Your task to perform on an android device: add a label to a message in the gmail app Image 0: 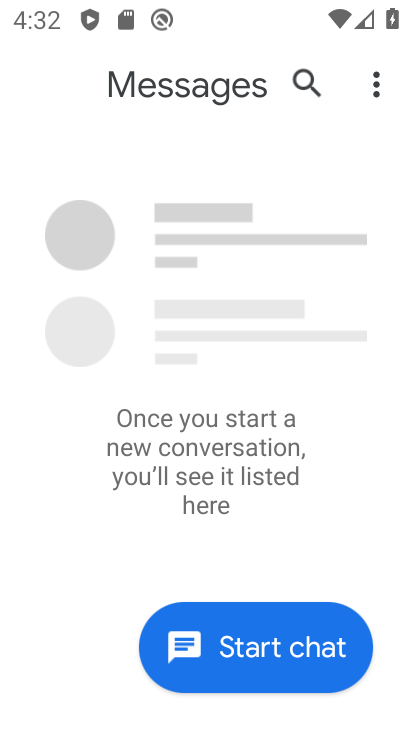
Step 0: press home button
Your task to perform on an android device: add a label to a message in the gmail app Image 1: 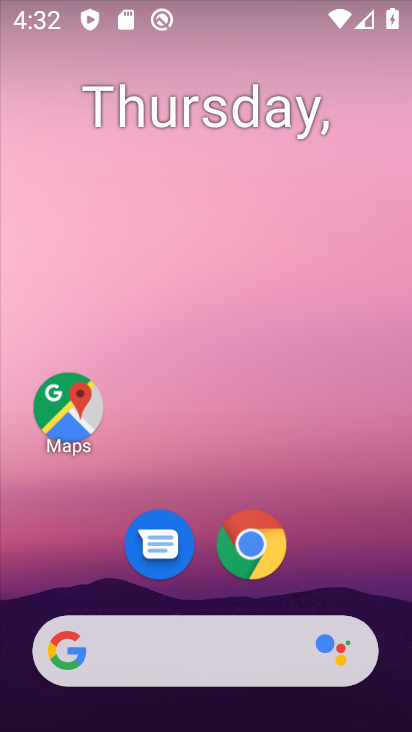
Step 1: drag from (349, 511) to (339, 85)
Your task to perform on an android device: add a label to a message in the gmail app Image 2: 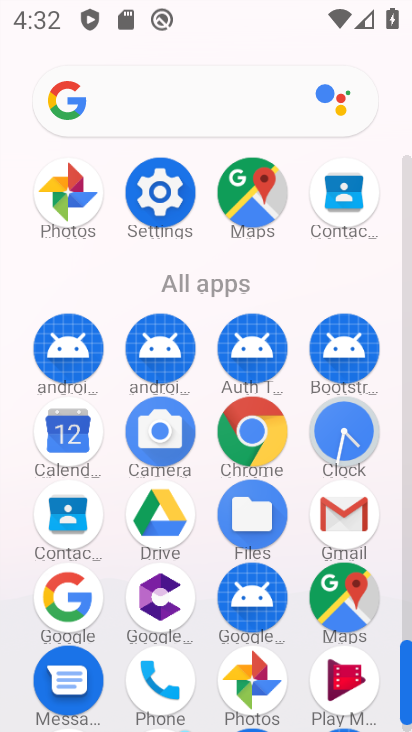
Step 2: click (349, 511)
Your task to perform on an android device: add a label to a message in the gmail app Image 3: 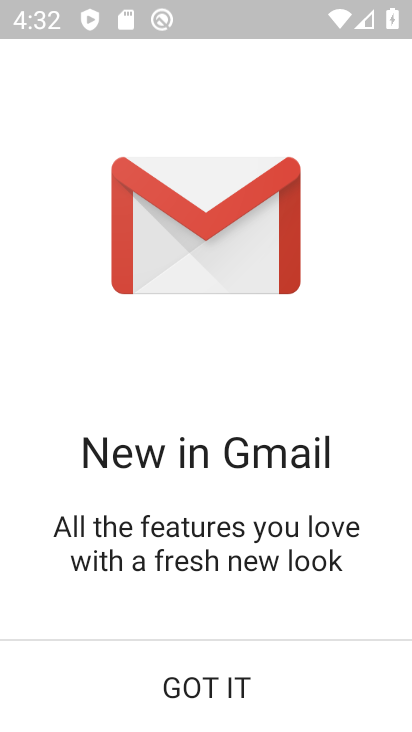
Step 3: click (187, 695)
Your task to perform on an android device: add a label to a message in the gmail app Image 4: 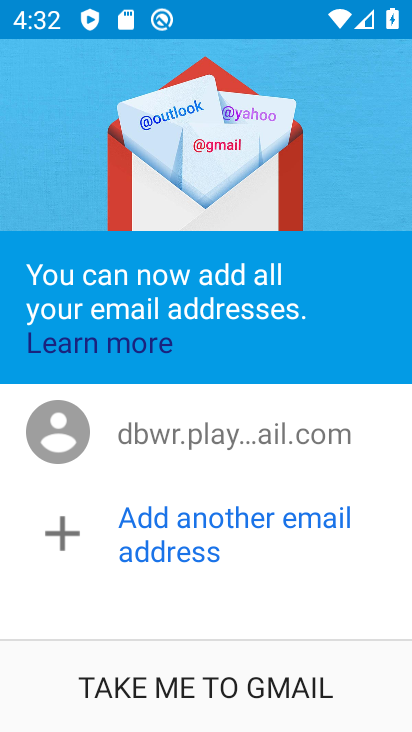
Step 4: click (193, 683)
Your task to perform on an android device: add a label to a message in the gmail app Image 5: 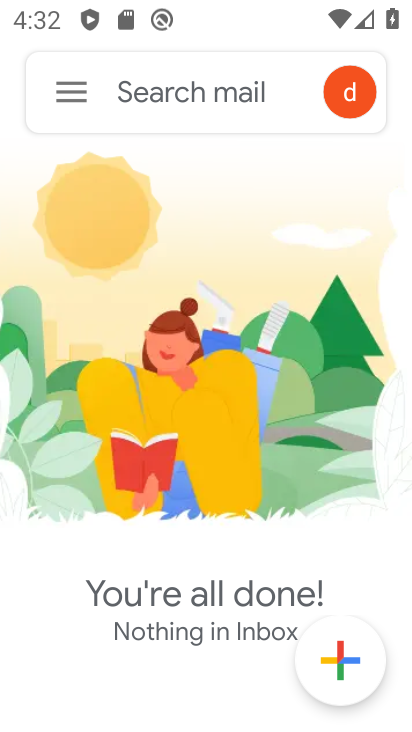
Step 5: click (67, 82)
Your task to perform on an android device: add a label to a message in the gmail app Image 6: 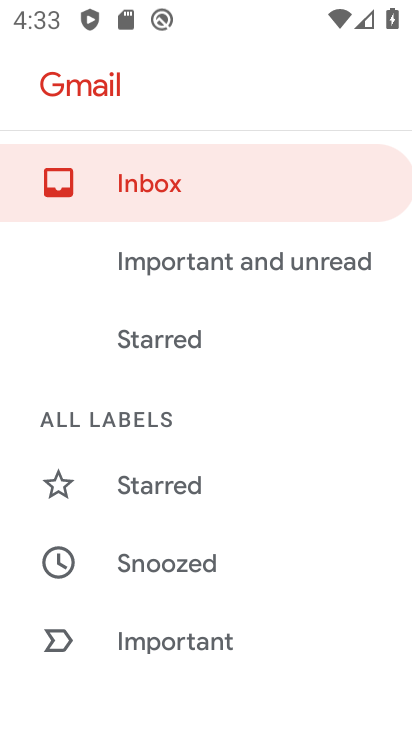
Step 6: drag from (170, 591) to (177, 322)
Your task to perform on an android device: add a label to a message in the gmail app Image 7: 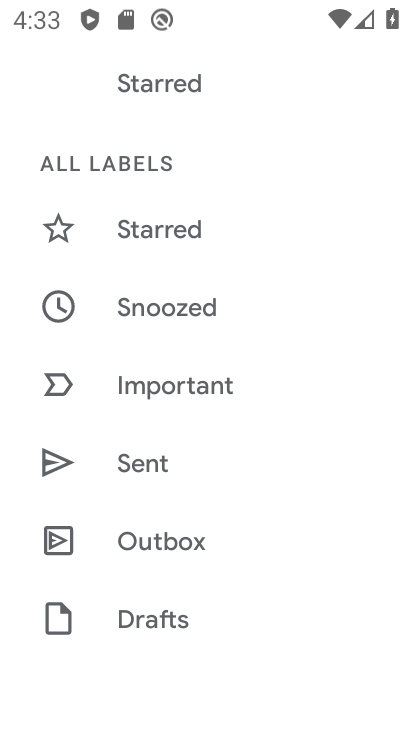
Step 7: drag from (190, 486) to (148, 229)
Your task to perform on an android device: add a label to a message in the gmail app Image 8: 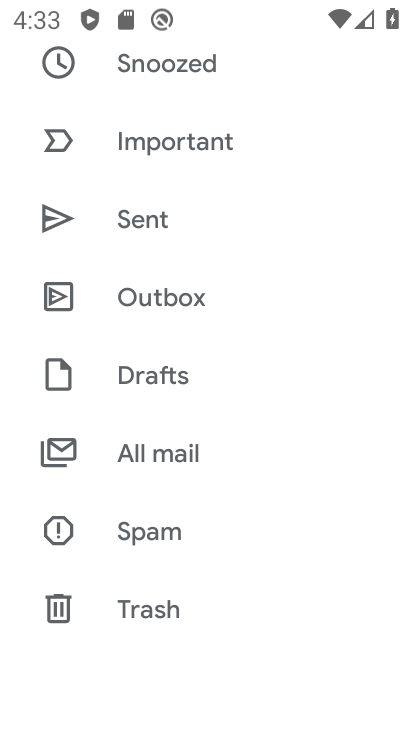
Step 8: drag from (149, 172) to (160, 399)
Your task to perform on an android device: add a label to a message in the gmail app Image 9: 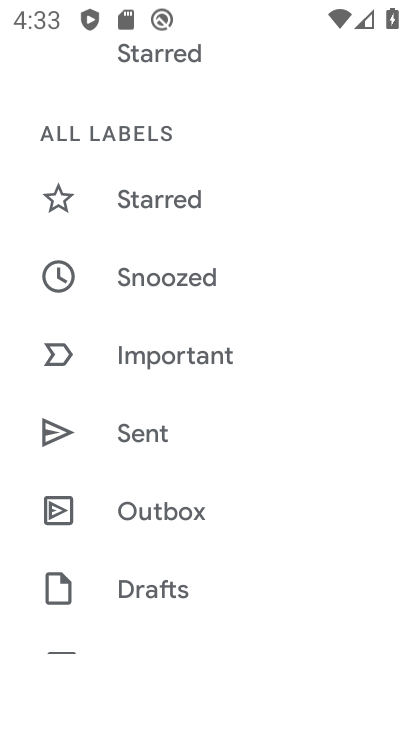
Step 9: click (117, 130)
Your task to perform on an android device: add a label to a message in the gmail app Image 10: 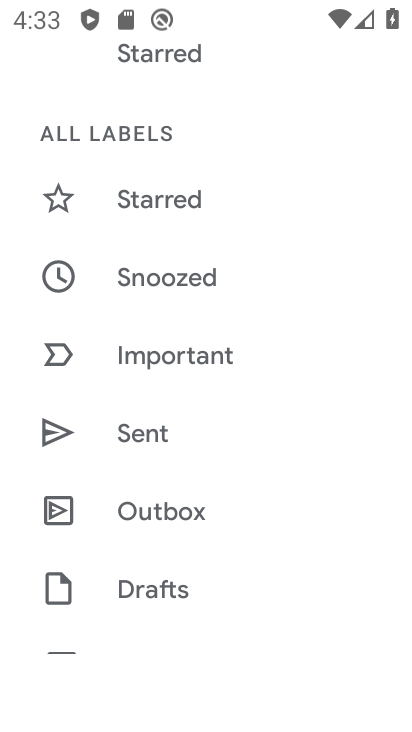
Step 10: task complete